Your task to perform on an android device: toggle airplane mode Image 0: 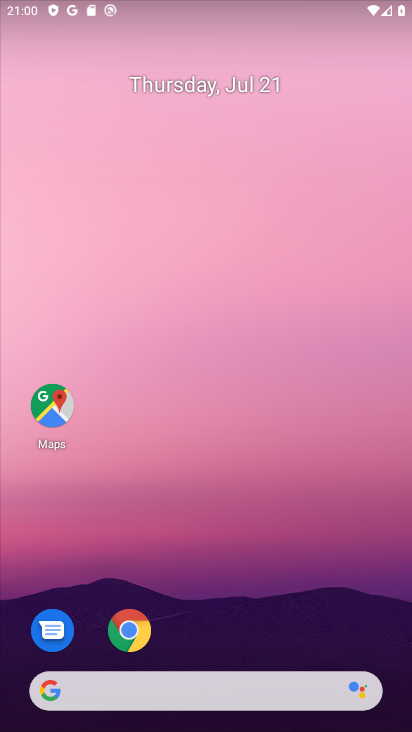
Step 0: drag from (347, 639) to (274, 134)
Your task to perform on an android device: toggle airplane mode Image 1: 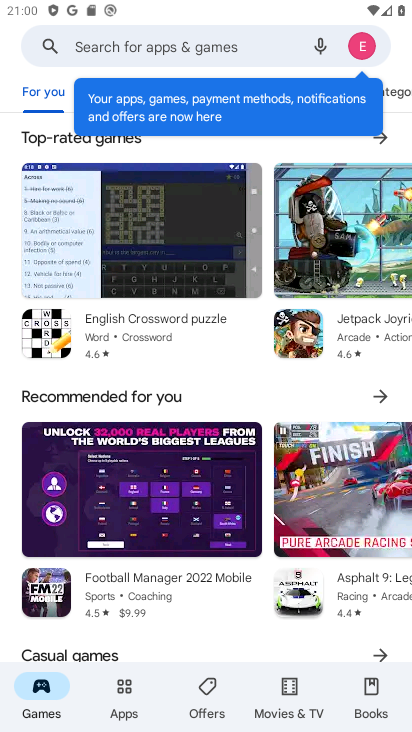
Step 1: press home button
Your task to perform on an android device: toggle airplane mode Image 2: 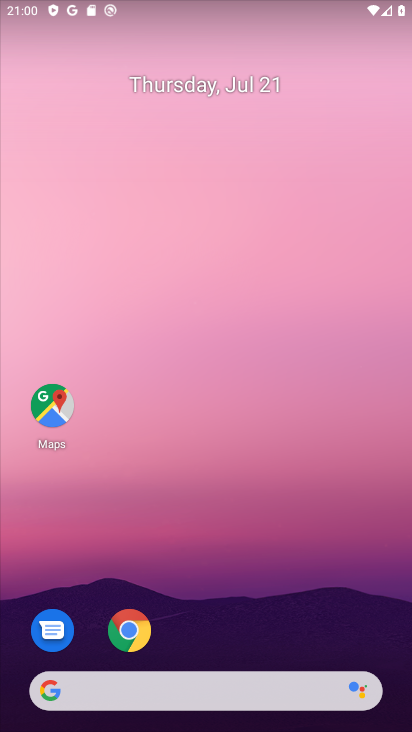
Step 2: drag from (331, 560) to (263, 18)
Your task to perform on an android device: toggle airplane mode Image 3: 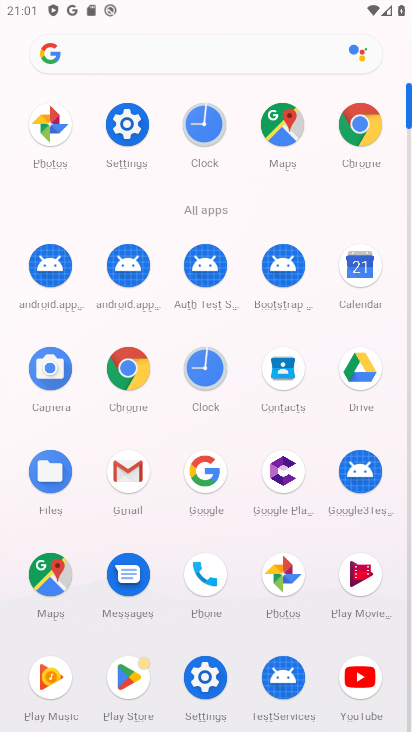
Step 3: click (138, 115)
Your task to perform on an android device: toggle airplane mode Image 4: 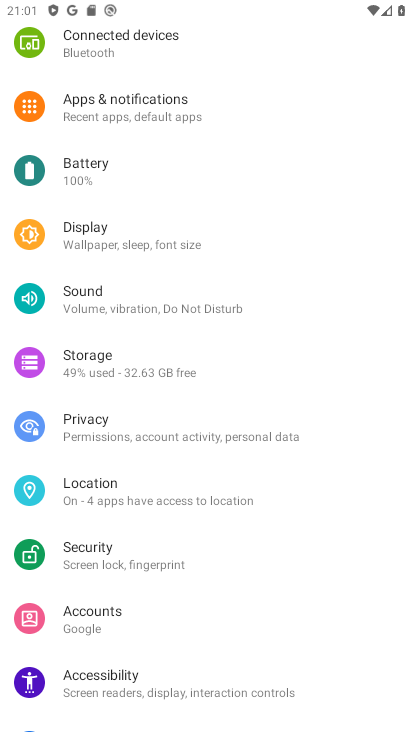
Step 4: drag from (151, 160) to (177, 523)
Your task to perform on an android device: toggle airplane mode Image 5: 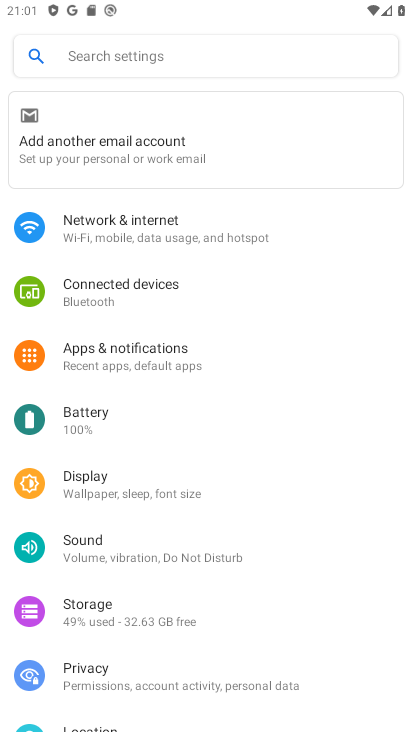
Step 5: click (142, 230)
Your task to perform on an android device: toggle airplane mode Image 6: 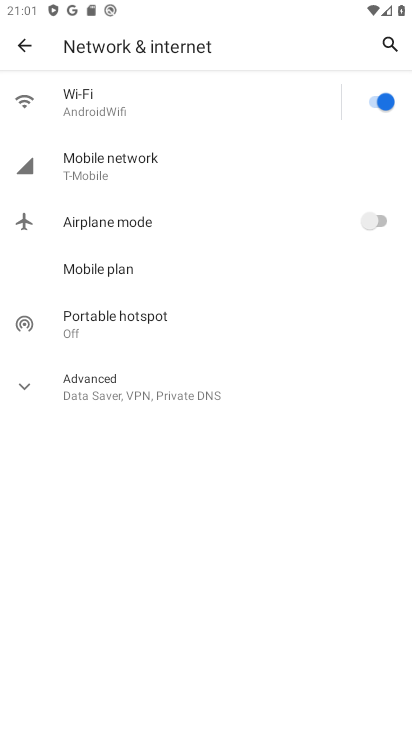
Step 6: click (386, 218)
Your task to perform on an android device: toggle airplane mode Image 7: 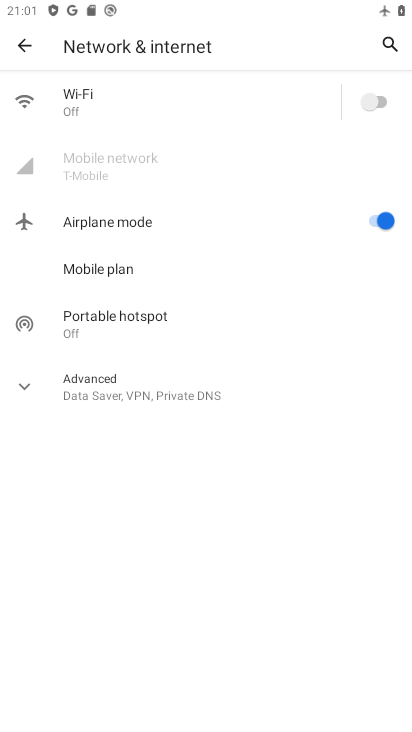
Step 7: task complete